Your task to perform on an android device: Go to location settings Image 0: 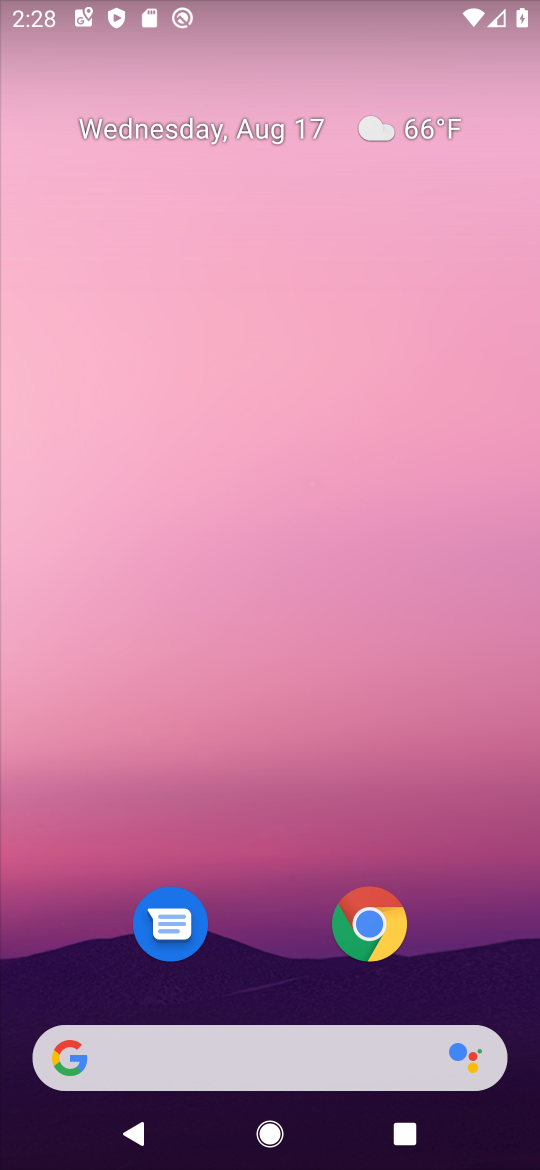
Step 0: drag from (264, 1074) to (164, 248)
Your task to perform on an android device: Go to location settings Image 1: 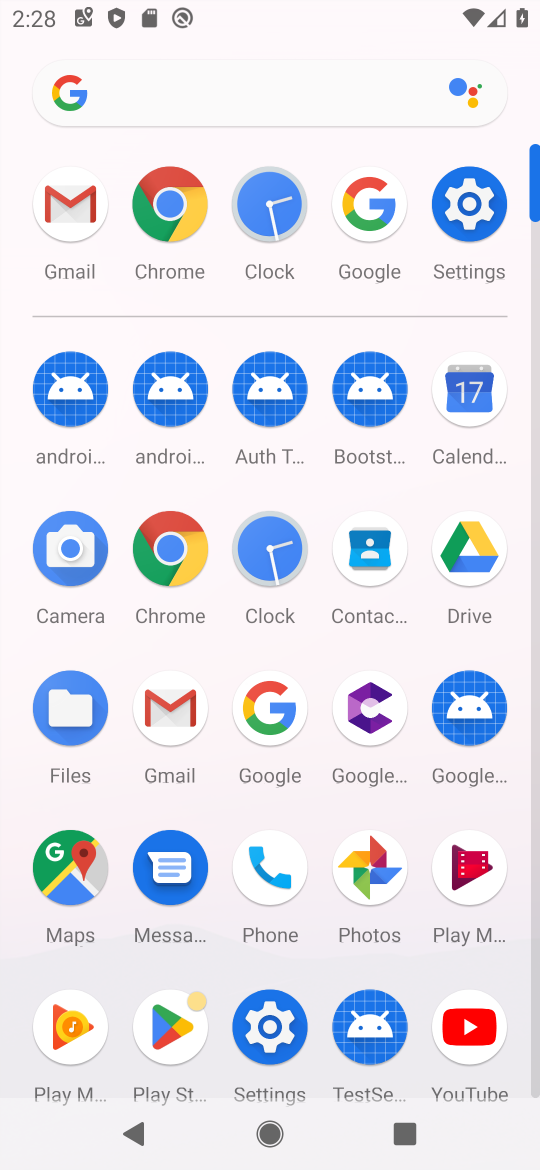
Step 1: click (472, 205)
Your task to perform on an android device: Go to location settings Image 2: 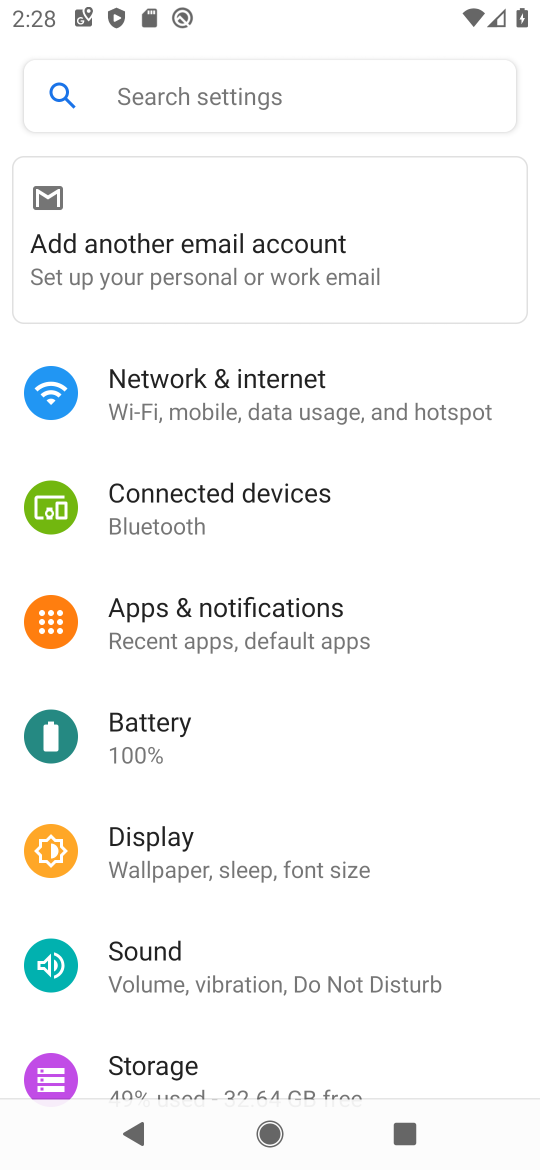
Step 2: drag from (259, 823) to (315, 680)
Your task to perform on an android device: Go to location settings Image 3: 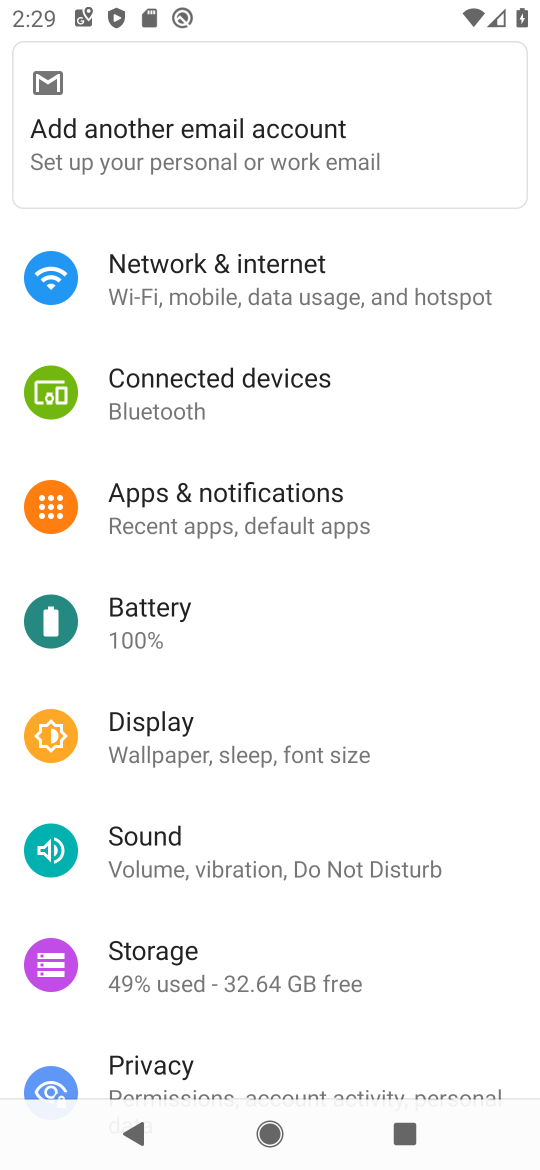
Step 3: drag from (228, 896) to (264, 740)
Your task to perform on an android device: Go to location settings Image 4: 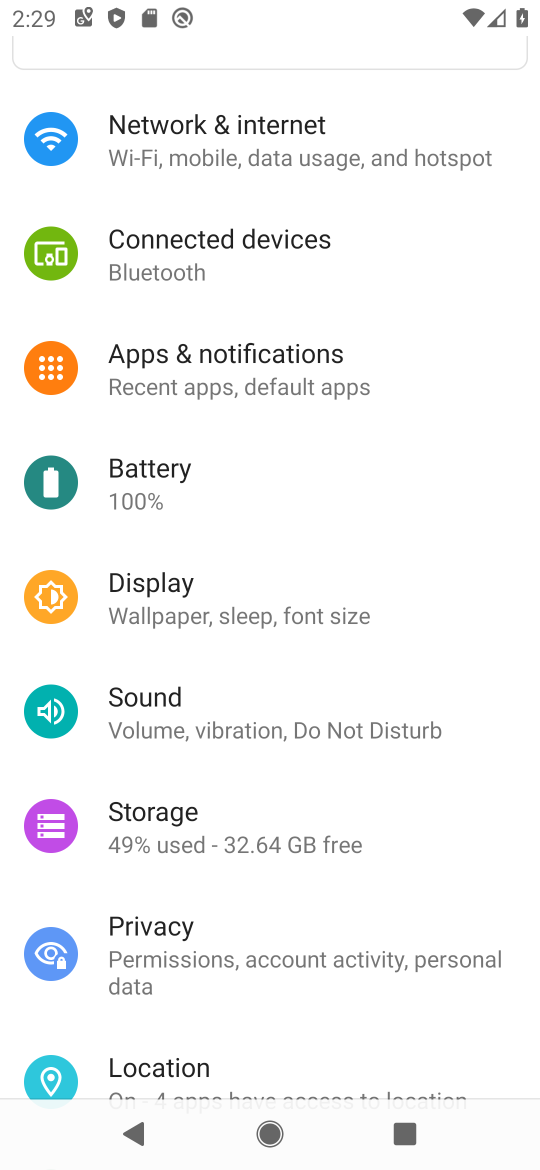
Step 4: drag from (218, 919) to (269, 792)
Your task to perform on an android device: Go to location settings Image 5: 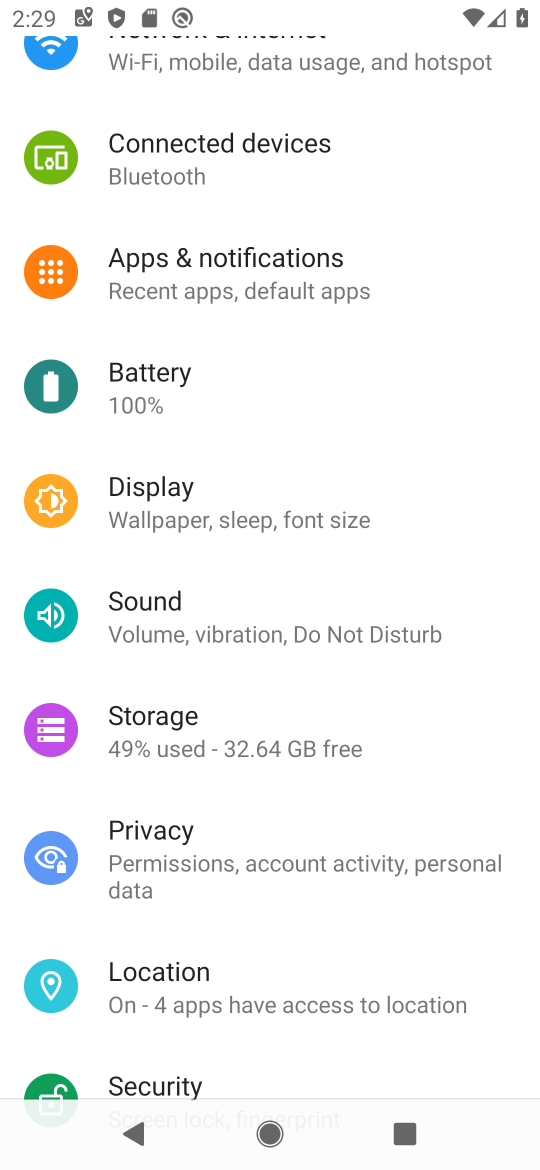
Step 5: click (194, 982)
Your task to perform on an android device: Go to location settings Image 6: 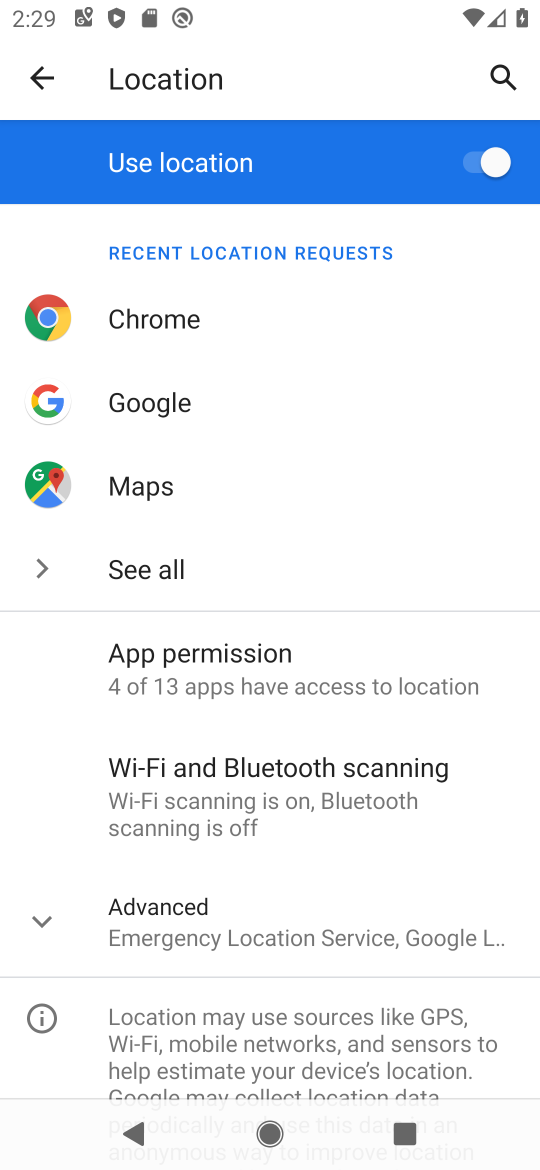
Step 6: task complete